Your task to perform on an android device: View the shopping cart on walmart. Search for bose soundsport free on walmart, select the first entry, add it to the cart, then select checkout. Image 0: 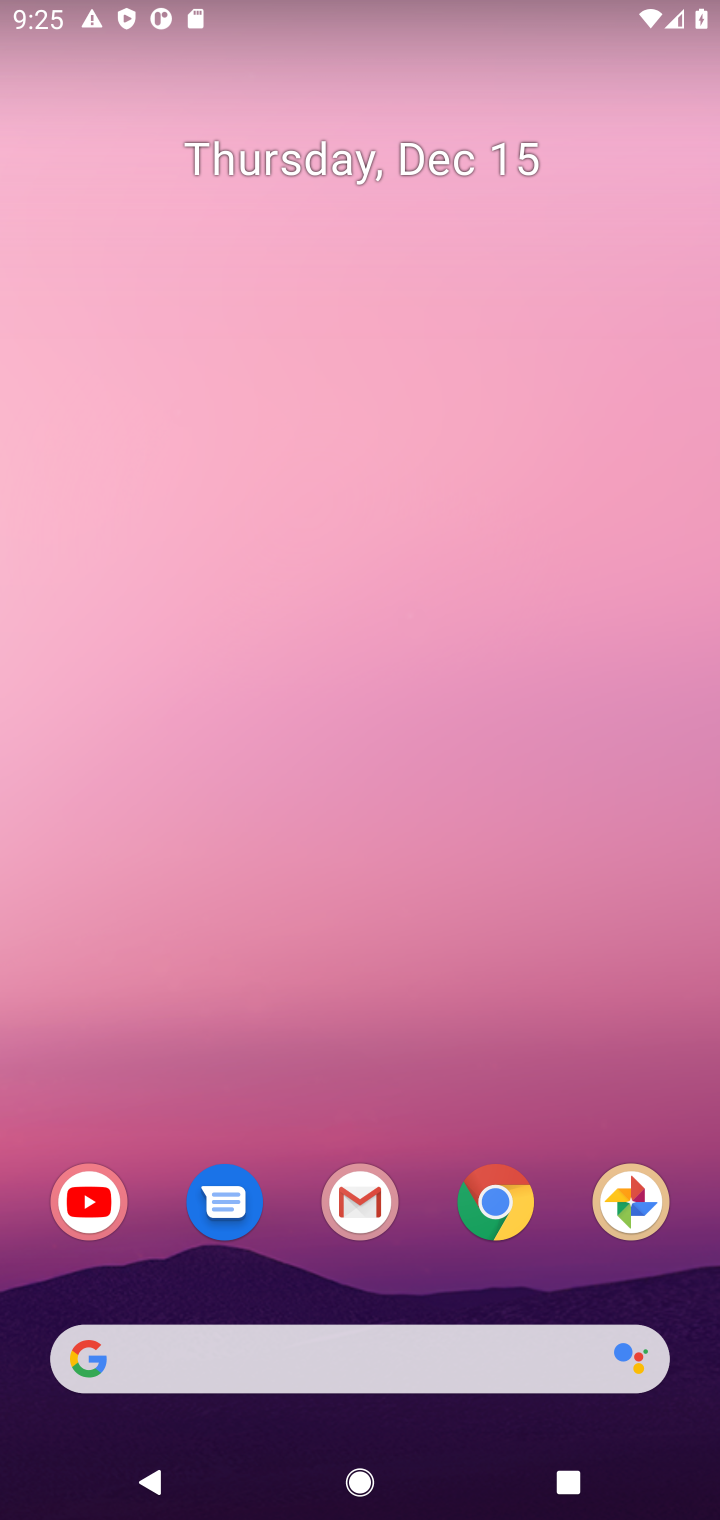
Step 0: click (500, 1200)
Your task to perform on an android device: View the shopping cart on walmart. Search for bose soundsport free on walmart, select the first entry, add it to the cart, then select checkout. Image 1: 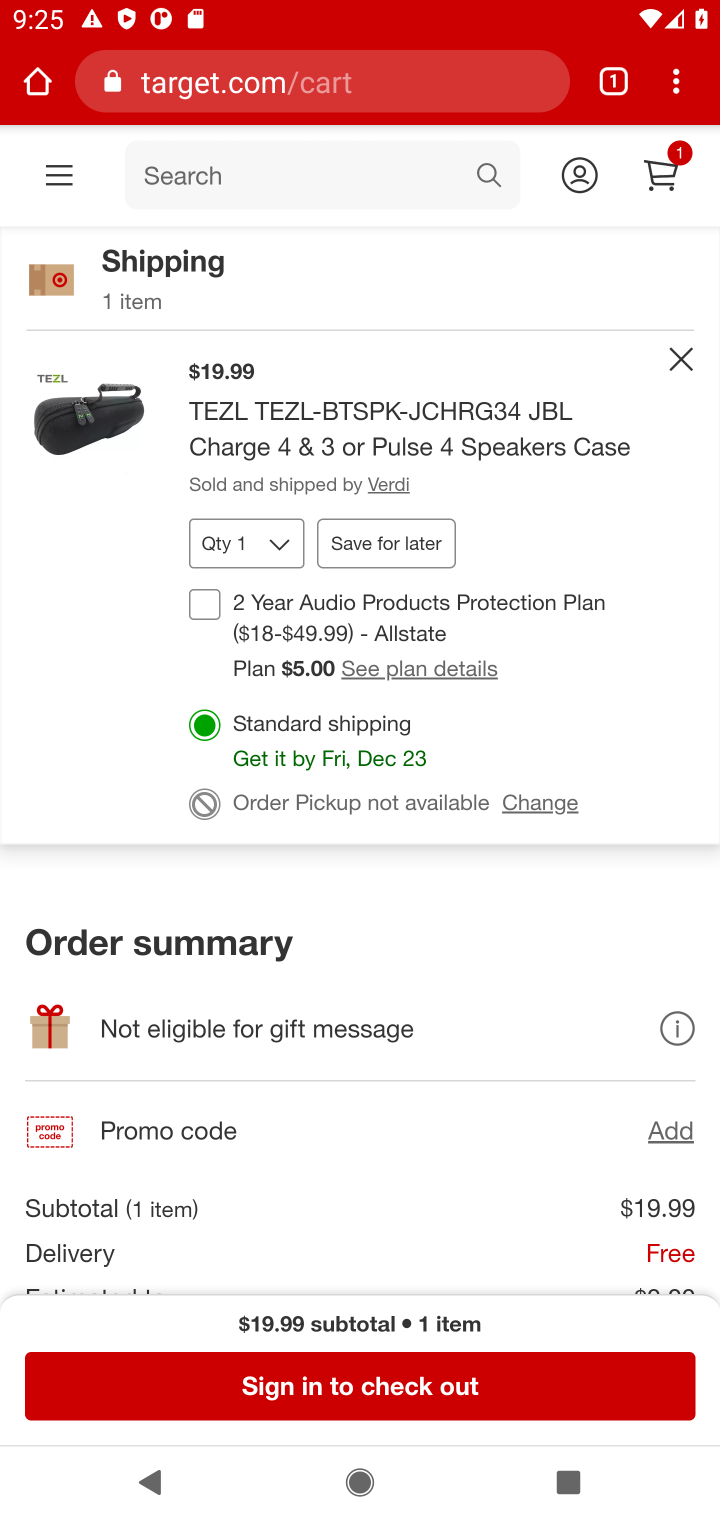
Step 1: click (276, 85)
Your task to perform on an android device: View the shopping cart on walmart. Search for bose soundsport free on walmart, select the first entry, add it to the cart, then select checkout. Image 2: 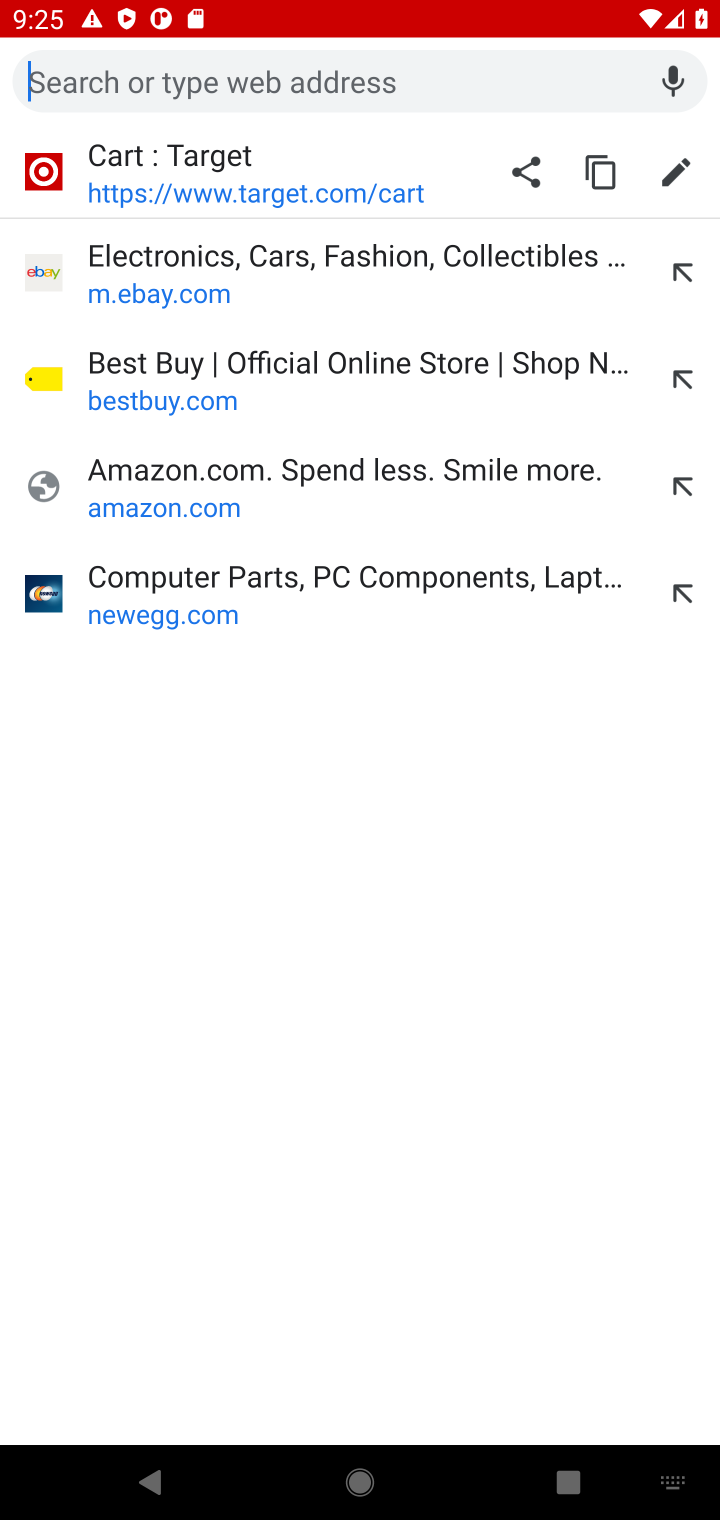
Step 2: type "walmart.com"
Your task to perform on an android device: View the shopping cart on walmart. Search for bose soundsport free on walmart, select the first entry, add it to the cart, then select checkout. Image 3: 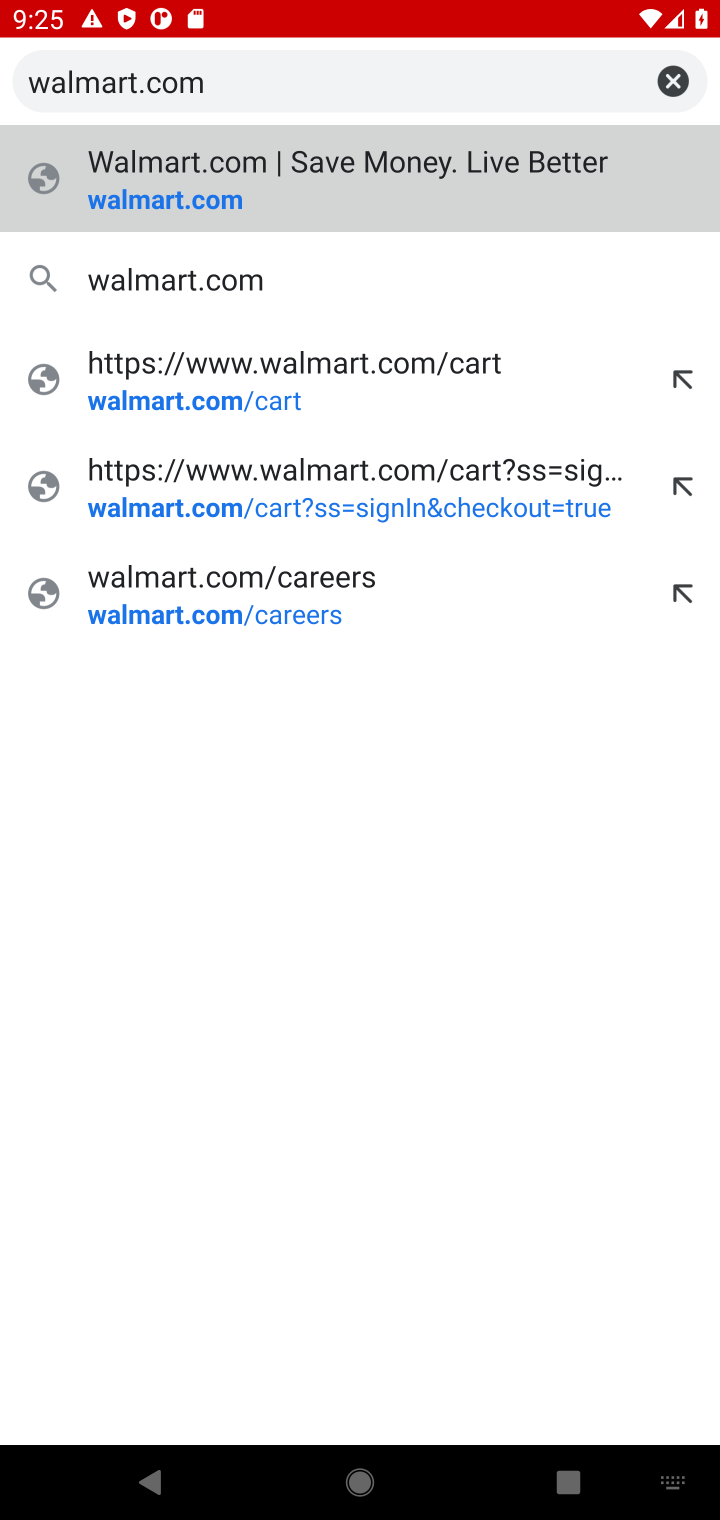
Step 3: click (138, 191)
Your task to perform on an android device: View the shopping cart on walmart. Search for bose soundsport free on walmart, select the first entry, add it to the cart, then select checkout. Image 4: 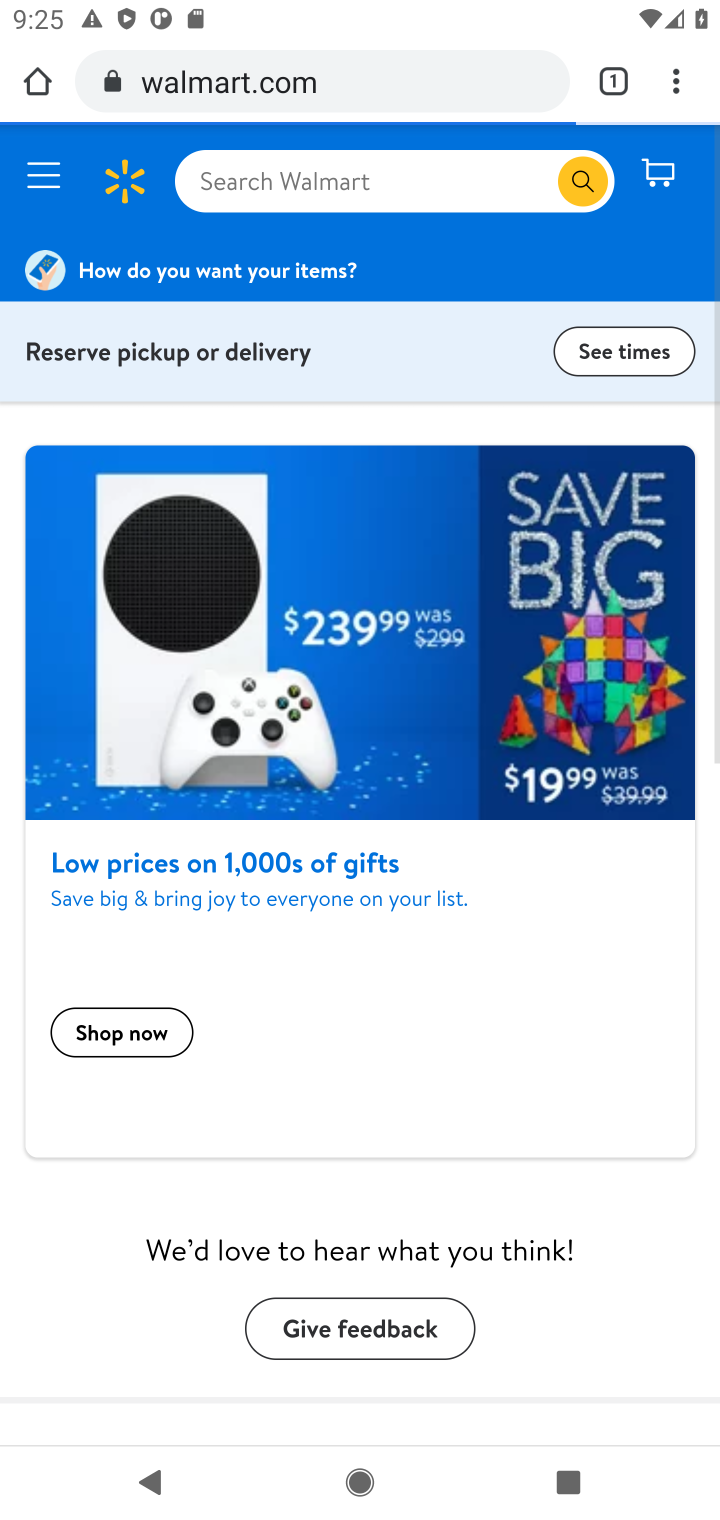
Step 4: click (664, 173)
Your task to perform on an android device: View the shopping cart on walmart. Search for bose soundsport free on walmart, select the first entry, add it to the cart, then select checkout. Image 5: 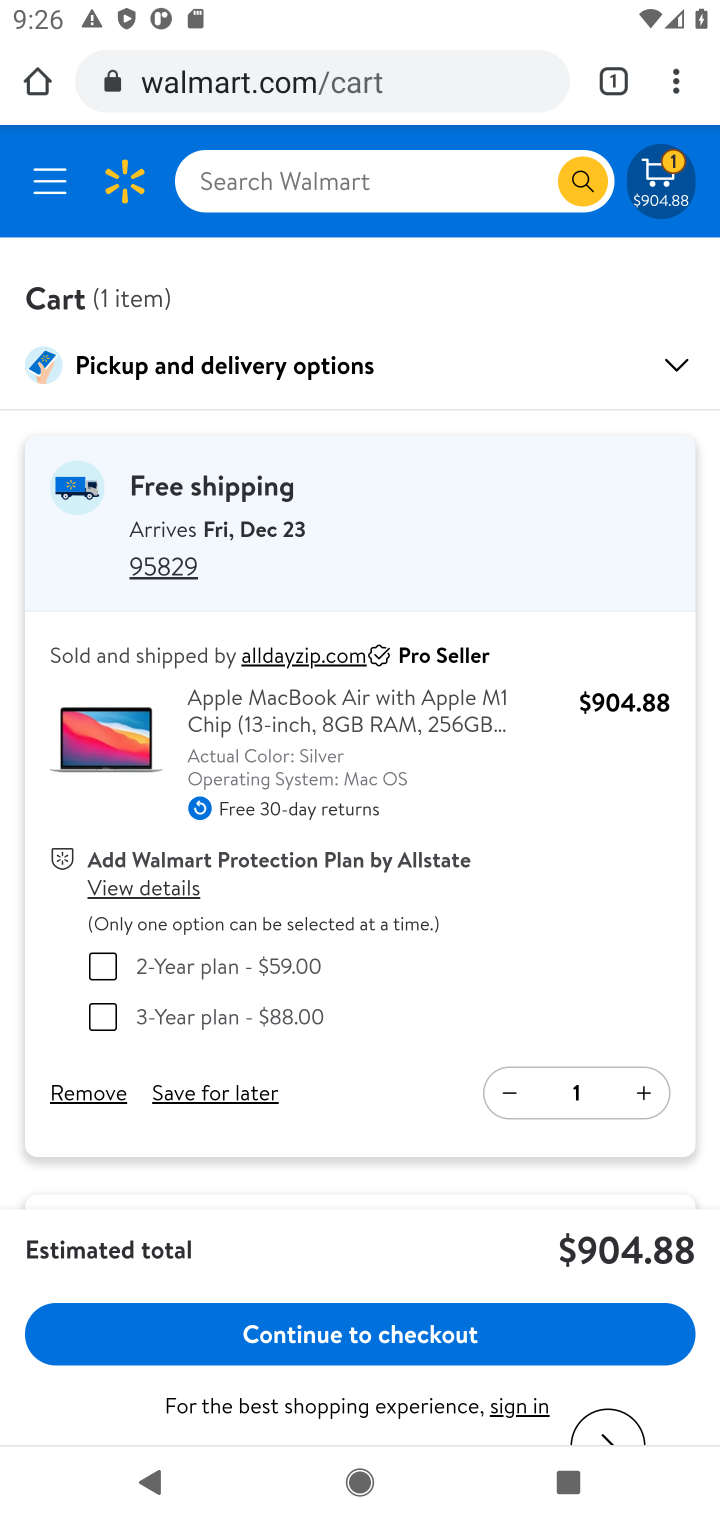
Step 5: click (299, 194)
Your task to perform on an android device: View the shopping cart on walmart. Search for bose soundsport free on walmart, select the first entry, add it to the cart, then select checkout. Image 6: 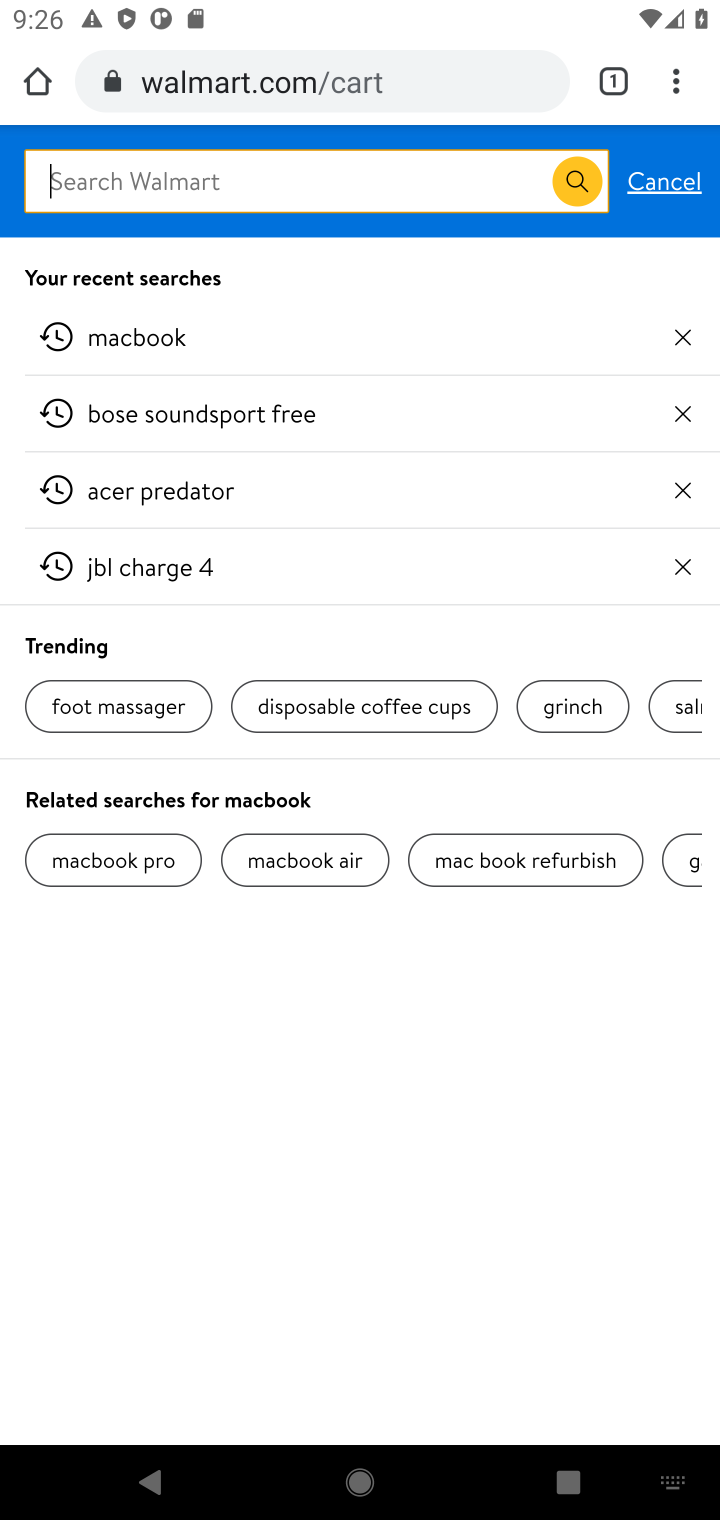
Step 6: type "bose soundsport free"
Your task to perform on an android device: View the shopping cart on walmart. Search for bose soundsport free on walmart, select the first entry, add it to the cart, then select checkout. Image 7: 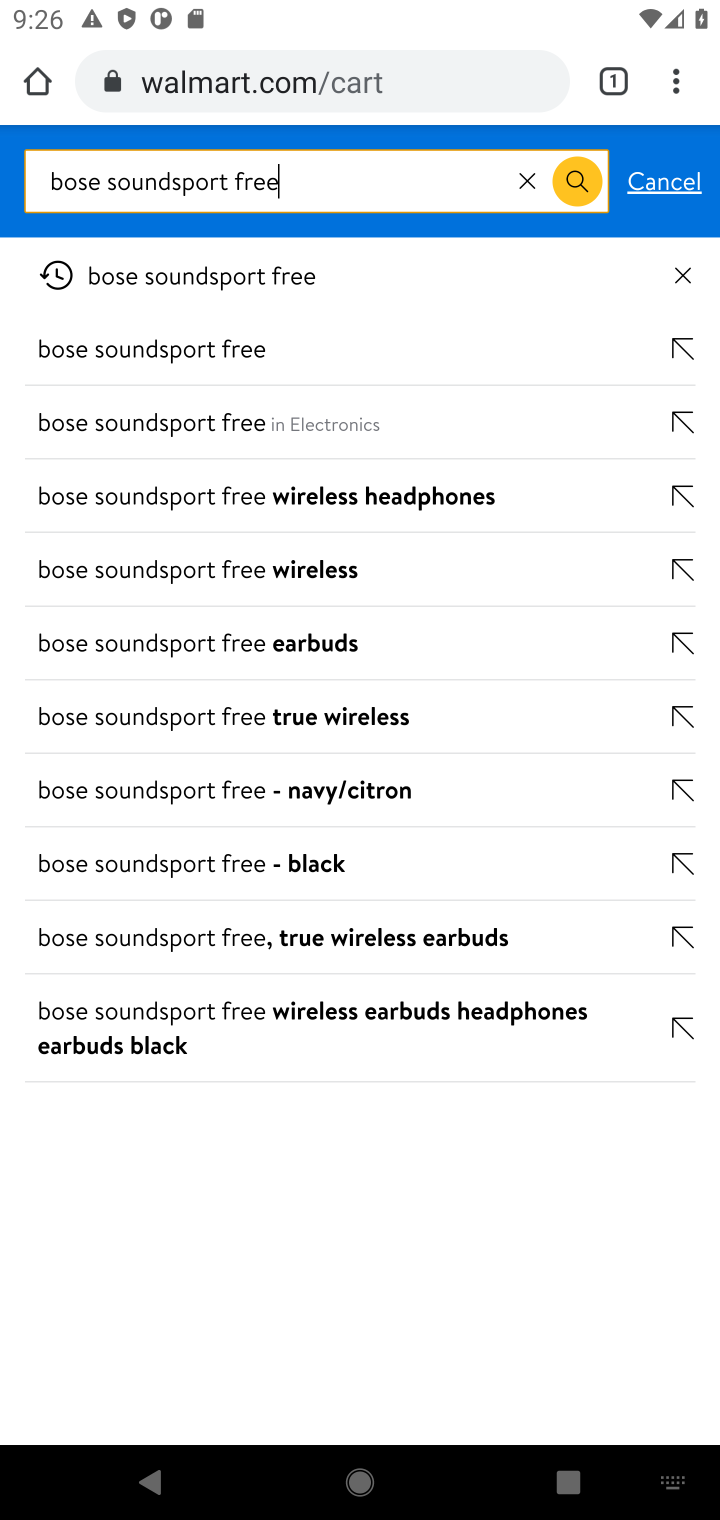
Step 7: click (217, 292)
Your task to perform on an android device: View the shopping cart on walmart. Search for bose soundsport free on walmart, select the first entry, add it to the cart, then select checkout. Image 8: 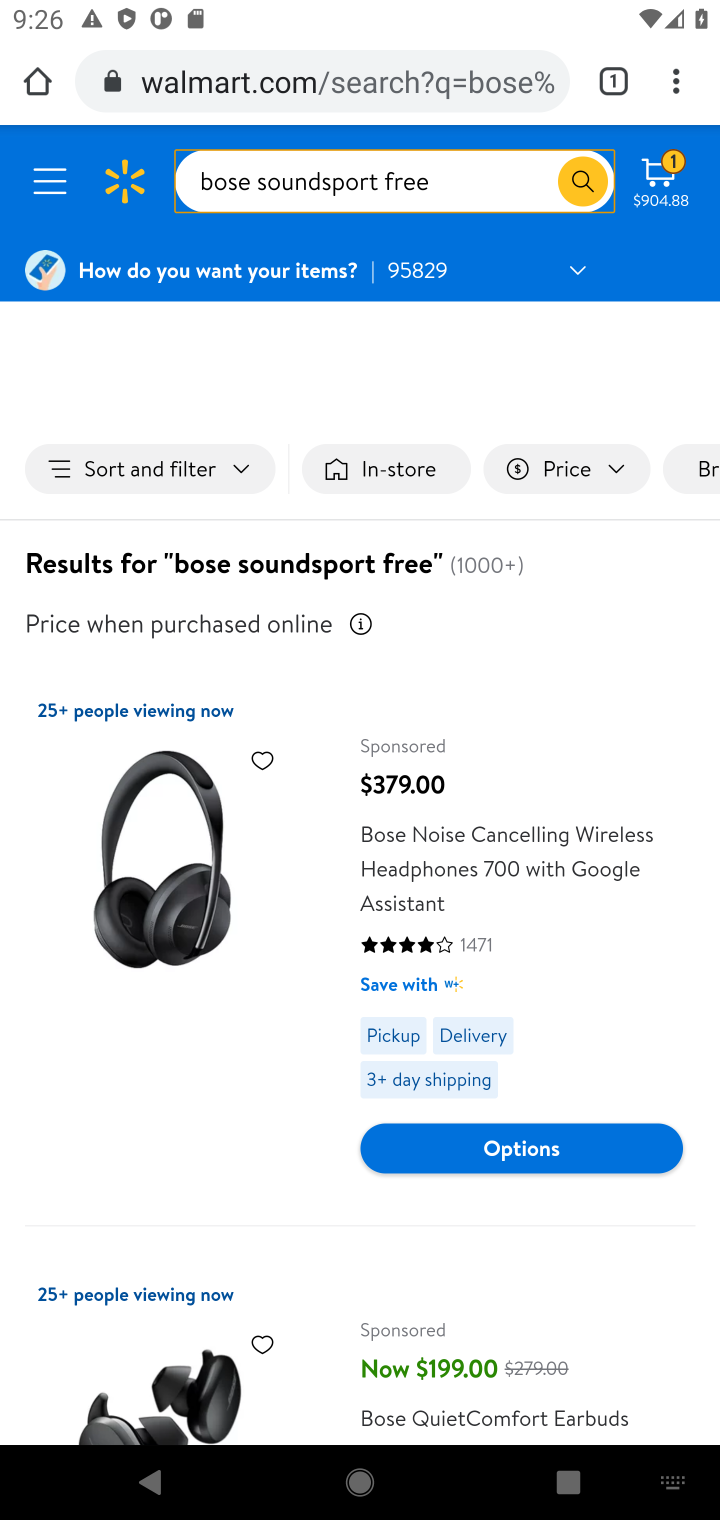
Step 8: task complete